Your task to perform on an android device: all mails in gmail Image 0: 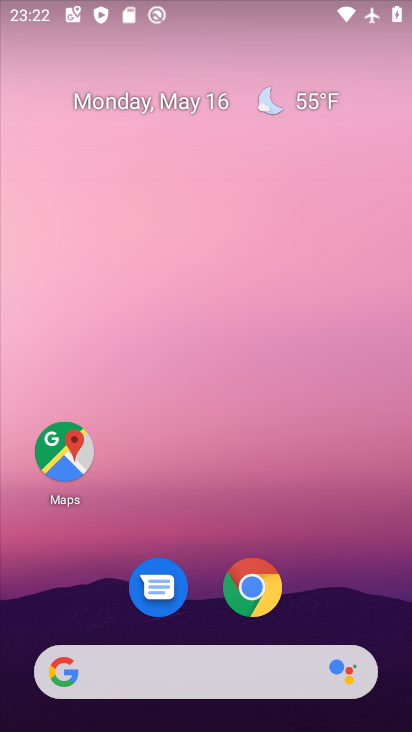
Step 0: drag from (357, 570) to (164, 3)
Your task to perform on an android device: all mails in gmail Image 1: 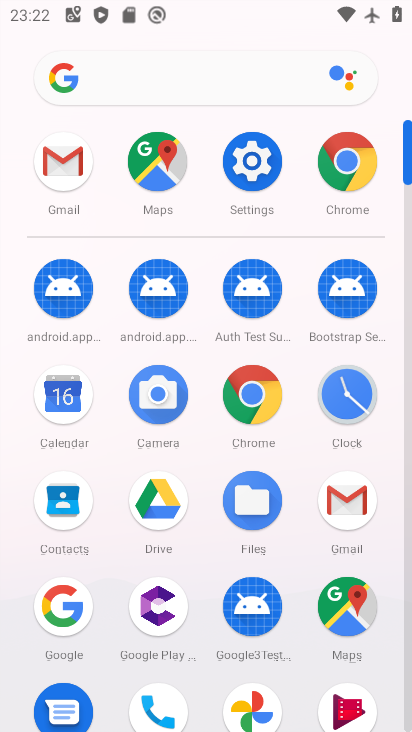
Step 1: drag from (12, 306) to (12, 174)
Your task to perform on an android device: all mails in gmail Image 2: 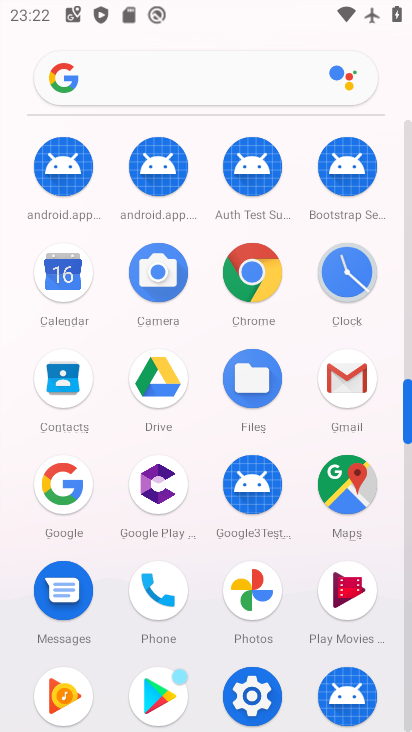
Step 2: click (346, 373)
Your task to perform on an android device: all mails in gmail Image 3: 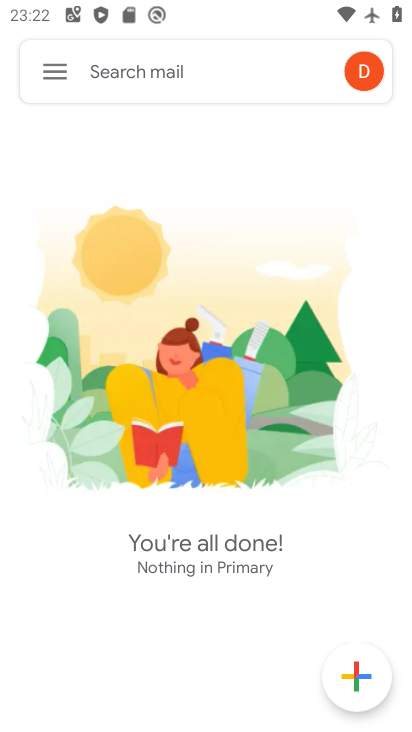
Step 3: click (50, 63)
Your task to perform on an android device: all mails in gmail Image 4: 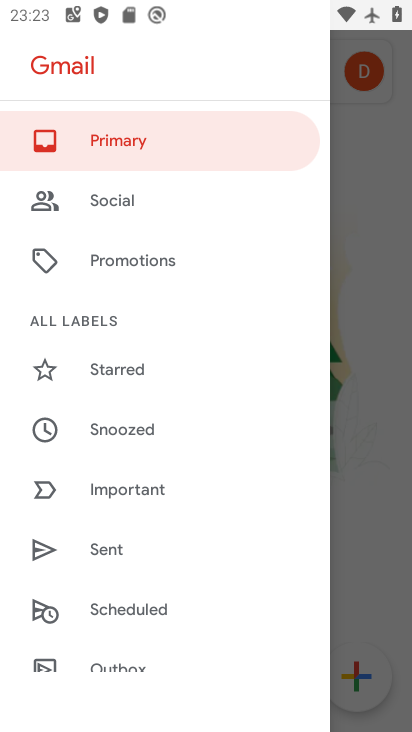
Step 4: drag from (182, 525) to (187, 113)
Your task to perform on an android device: all mails in gmail Image 5: 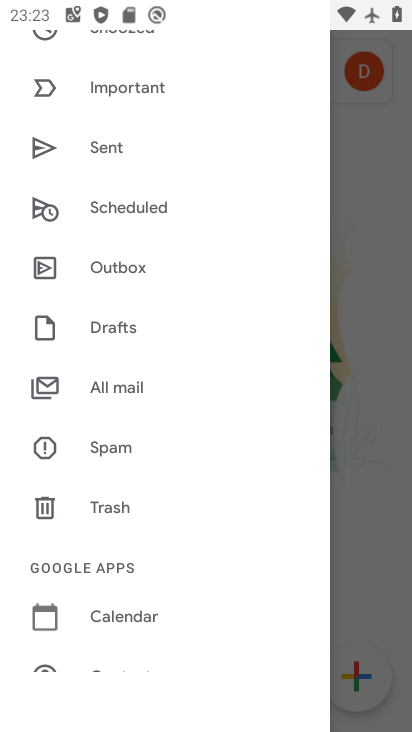
Step 5: click (146, 385)
Your task to perform on an android device: all mails in gmail Image 6: 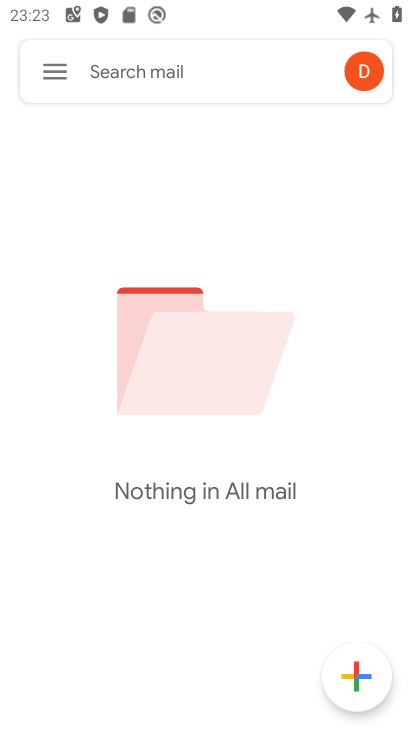
Step 6: task complete